Your task to perform on an android device: Open Amazon Image 0: 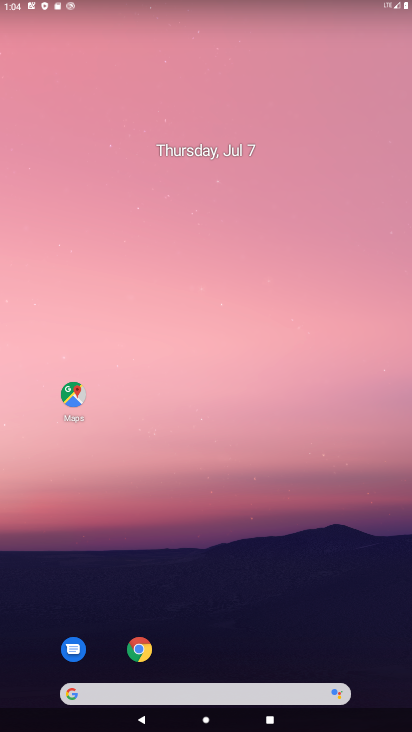
Step 0: click (238, 677)
Your task to perform on an android device: Open Amazon Image 1: 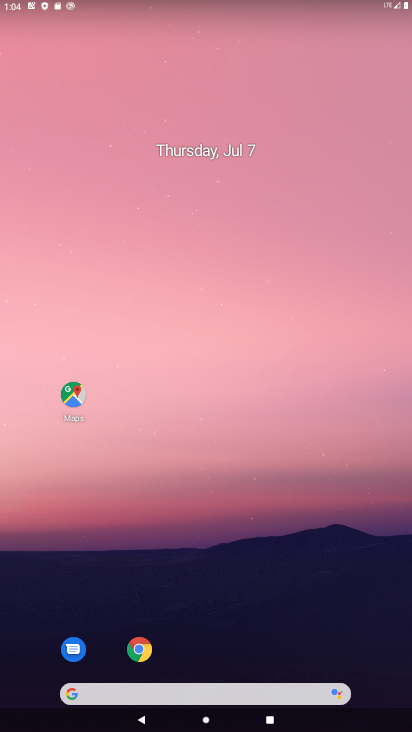
Step 1: click (180, 690)
Your task to perform on an android device: Open Amazon Image 2: 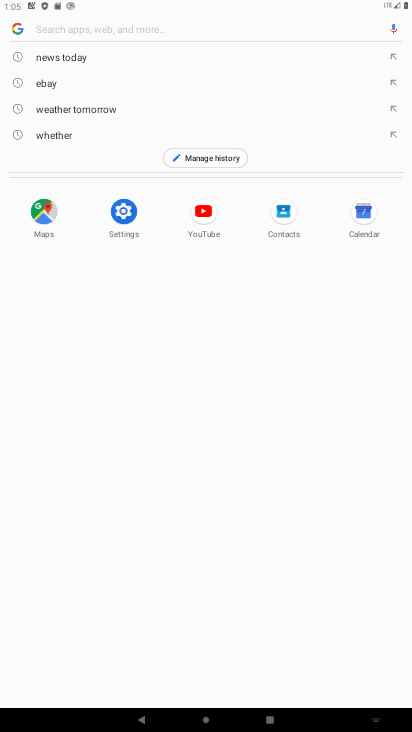
Step 2: click (144, 25)
Your task to perform on an android device: Open Amazon Image 3: 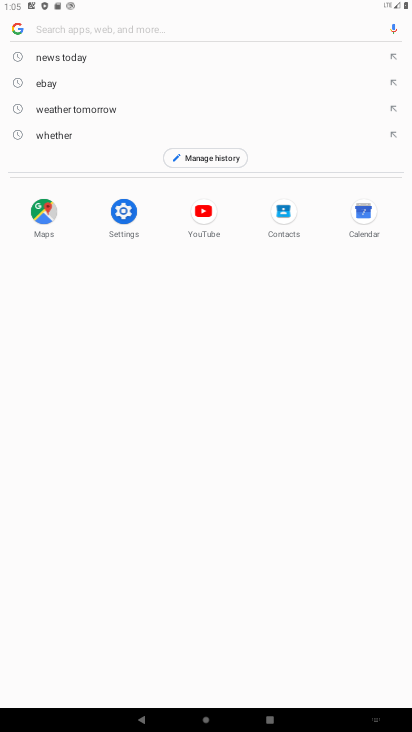
Step 3: type "amazon"
Your task to perform on an android device: Open Amazon Image 4: 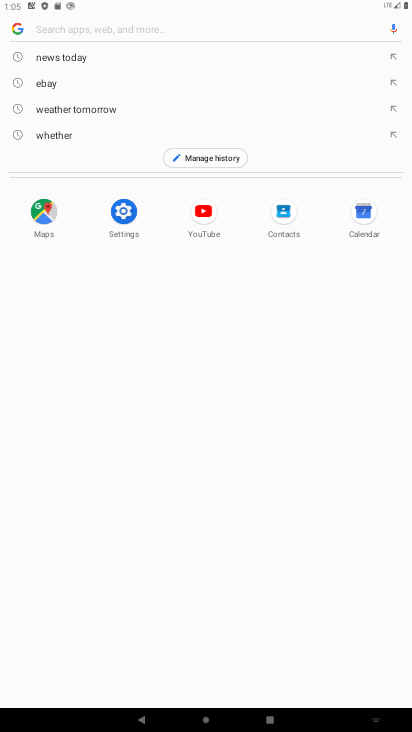
Step 4: click (137, 20)
Your task to perform on an android device: Open Amazon Image 5: 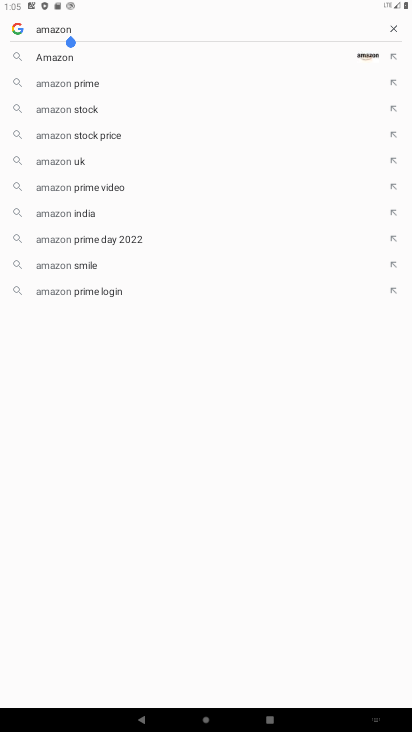
Step 5: click (48, 60)
Your task to perform on an android device: Open Amazon Image 6: 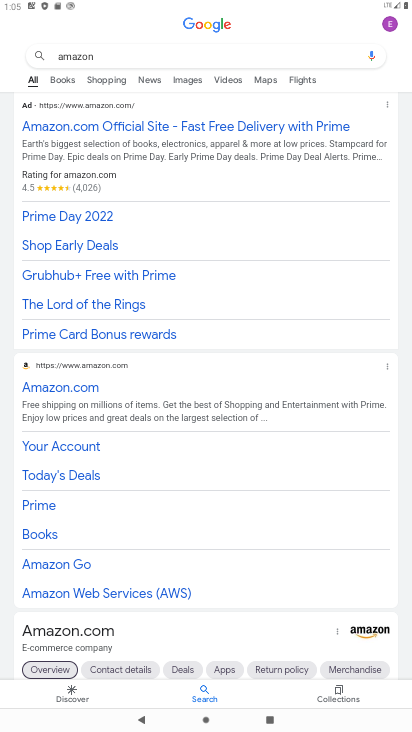
Step 6: click (65, 383)
Your task to perform on an android device: Open Amazon Image 7: 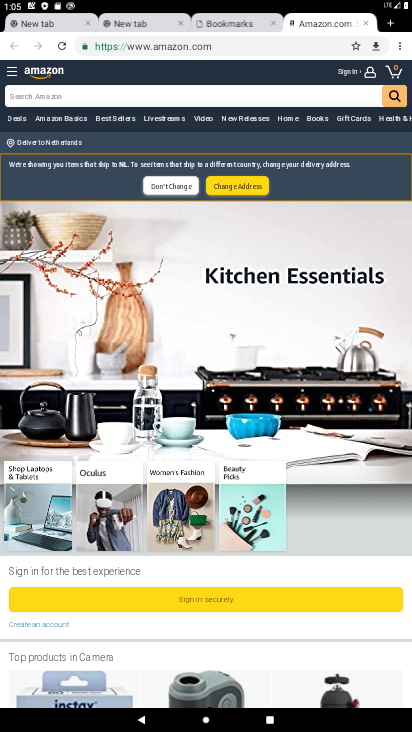
Step 7: task complete